Your task to perform on an android device: show emergency info Image 0: 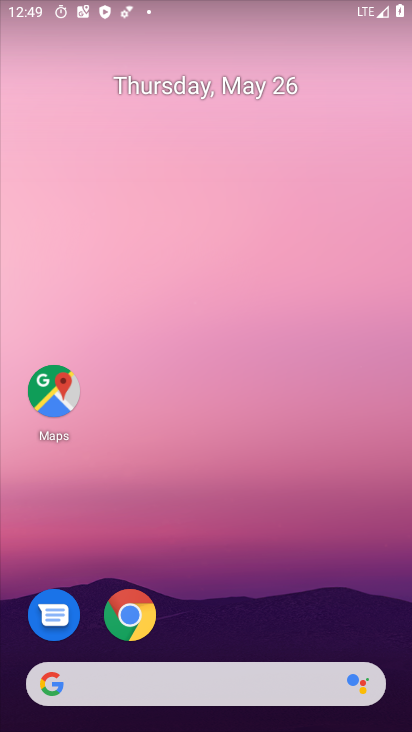
Step 0: drag from (245, 626) to (184, 81)
Your task to perform on an android device: show emergency info Image 1: 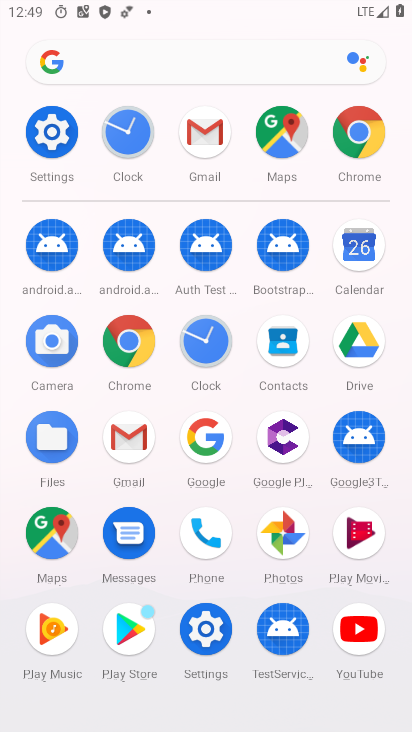
Step 1: click (61, 119)
Your task to perform on an android device: show emergency info Image 2: 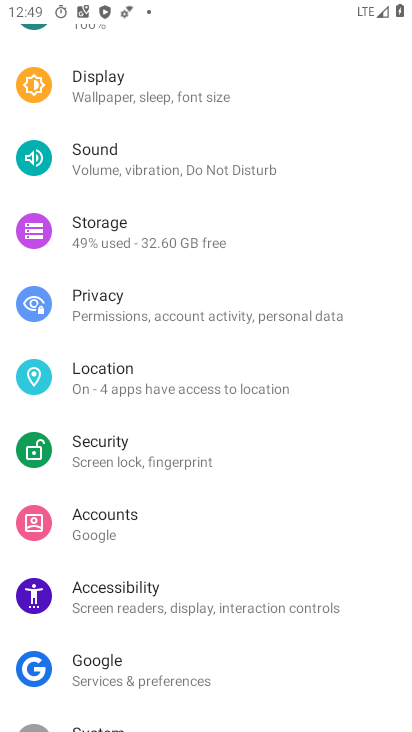
Step 2: drag from (189, 668) to (184, 201)
Your task to perform on an android device: show emergency info Image 3: 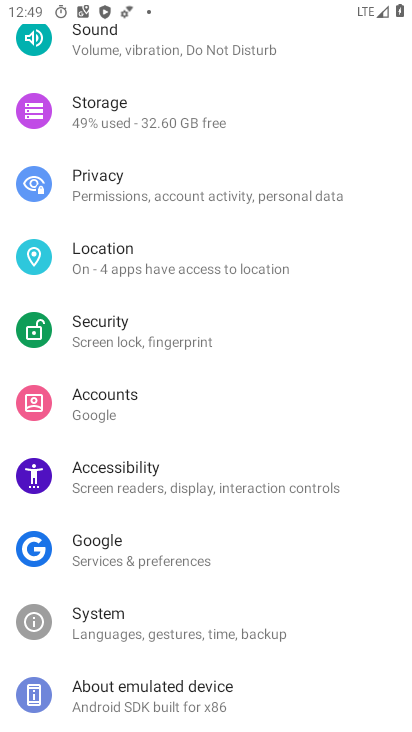
Step 3: click (151, 698)
Your task to perform on an android device: show emergency info Image 4: 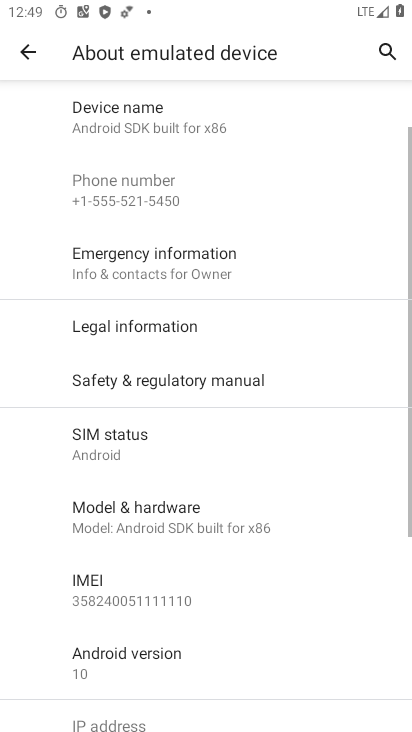
Step 4: click (323, 267)
Your task to perform on an android device: show emergency info Image 5: 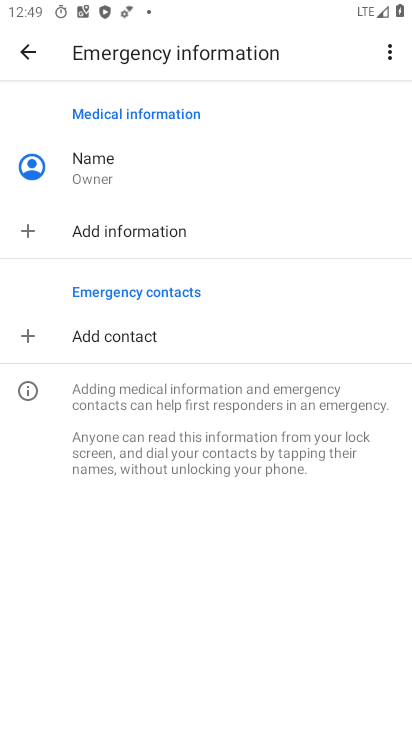
Step 5: task complete